Your task to perform on an android device: find photos in the google photos app Image 0: 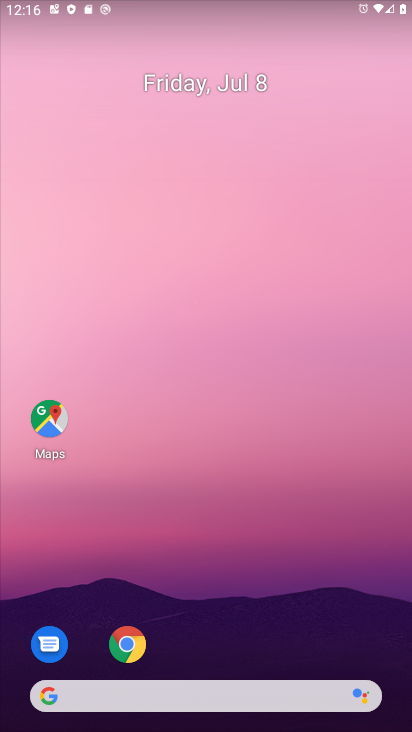
Step 0: drag from (251, 595) to (248, 157)
Your task to perform on an android device: find photos in the google photos app Image 1: 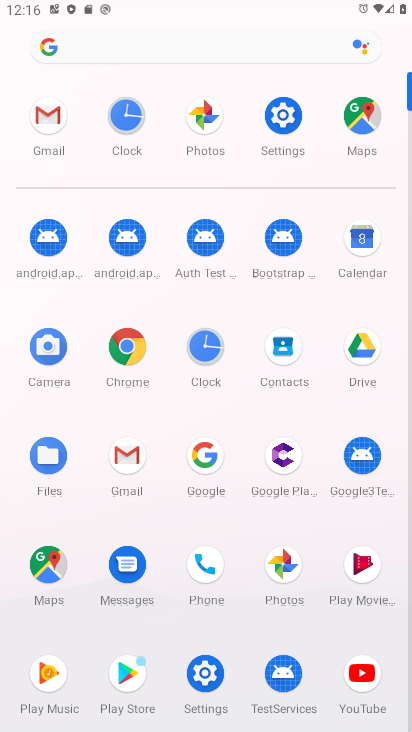
Step 1: click (274, 573)
Your task to perform on an android device: find photos in the google photos app Image 2: 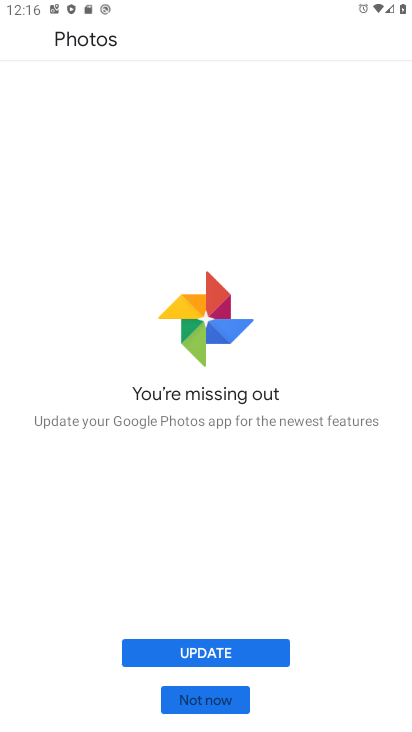
Step 2: click (213, 689)
Your task to perform on an android device: find photos in the google photos app Image 3: 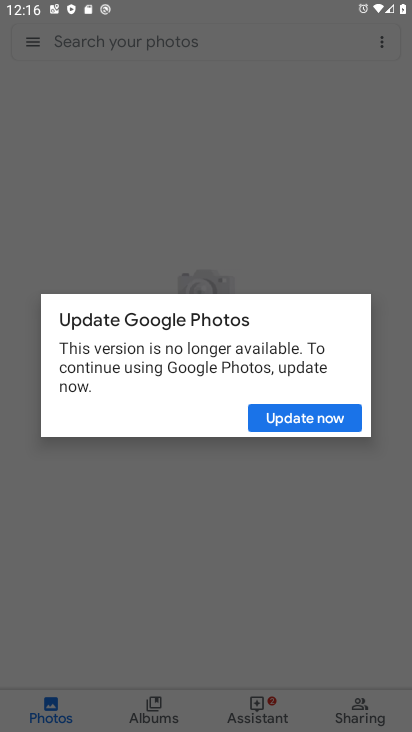
Step 3: click (311, 423)
Your task to perform on an android device: find photos in the google photos app Image 4: 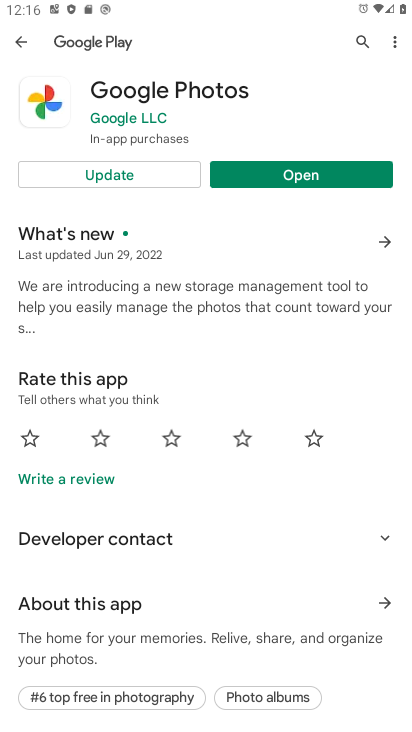
Step 4: task complete